Your task to perform on an android device: Open sound settings Image 0: 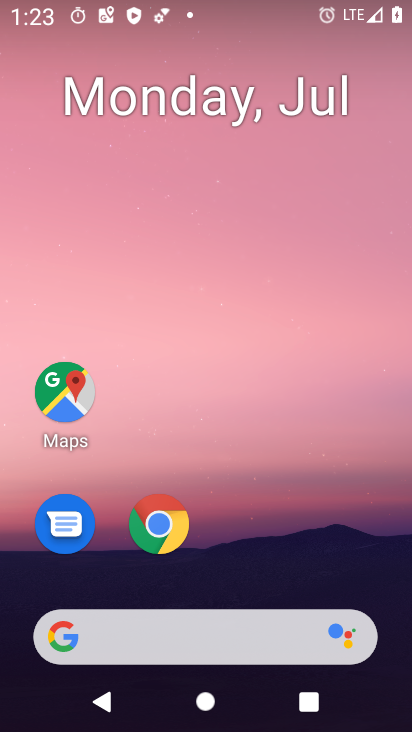
Step 0: press home button
Your task to perform on an android device: Open sound settings Image 1: 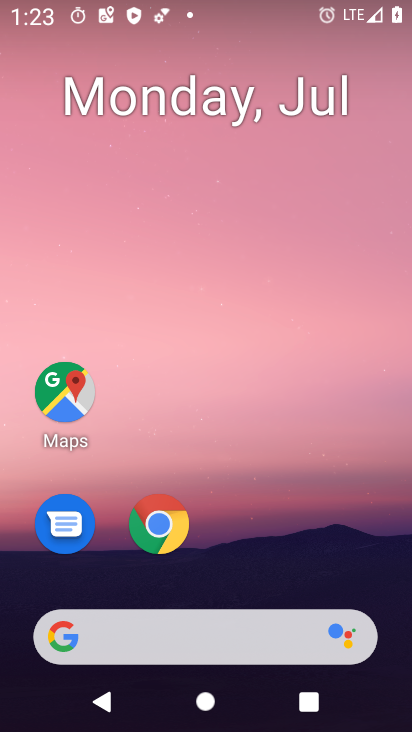
Step 1: drag from (265, 569) to (261, 90)
Your task to perform on an android device: Open sound settings Image 2: 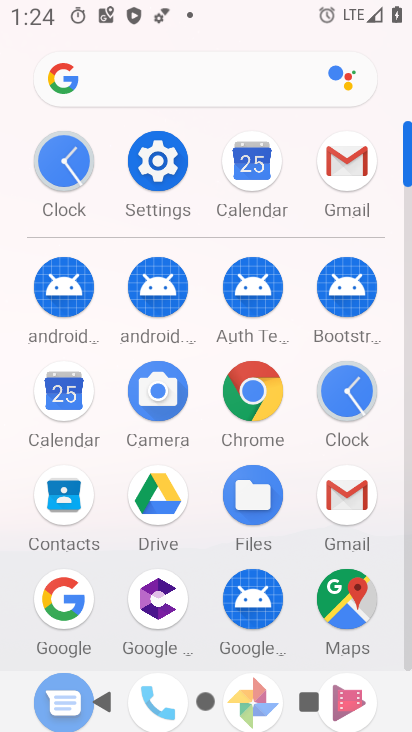
Step 2: click (169, 151)
Your task to perform on an android device: Open sound settings Image 3: 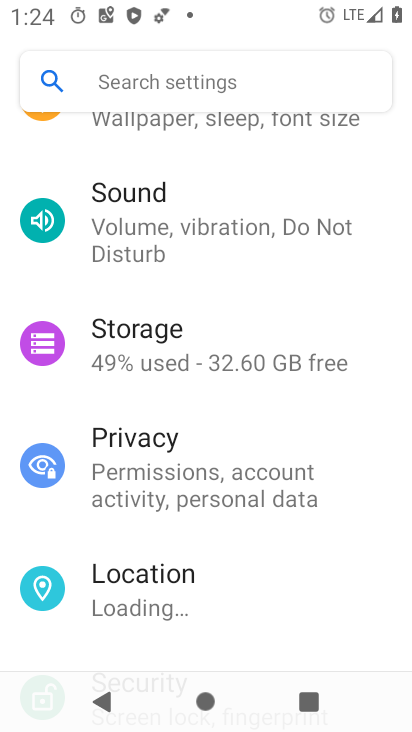
Step 3: drag from (114, 544) to (212, 435)
Your task to perform on an android device: Open sound settings Image 4: 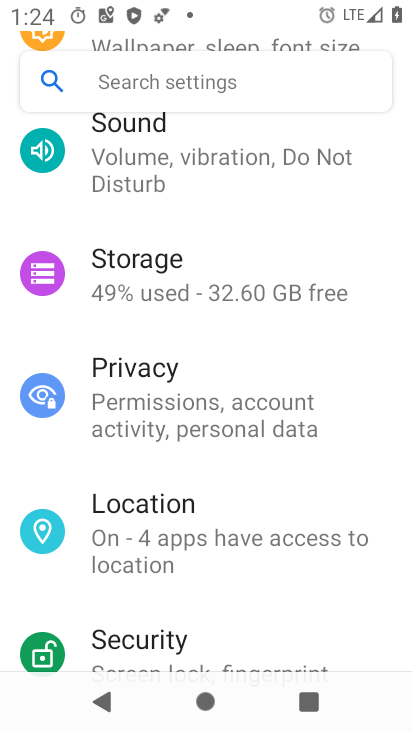
Step 4: click (193, 161)
Your task to perform on an android device: Open sound settings Image 5: 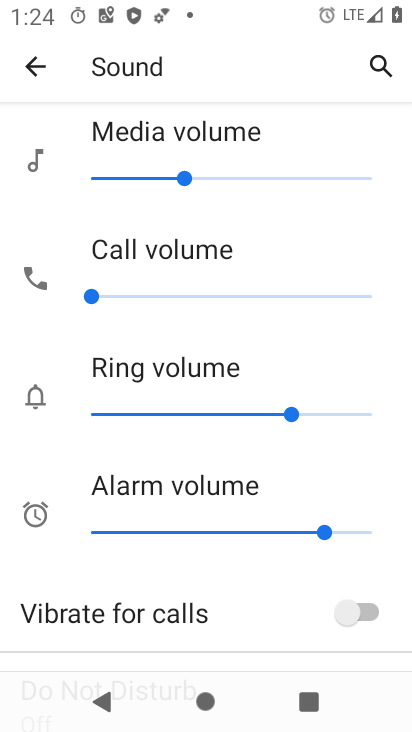
Step 5: task complete